Your task to perform on an android device: What is the recent news? Image 0: 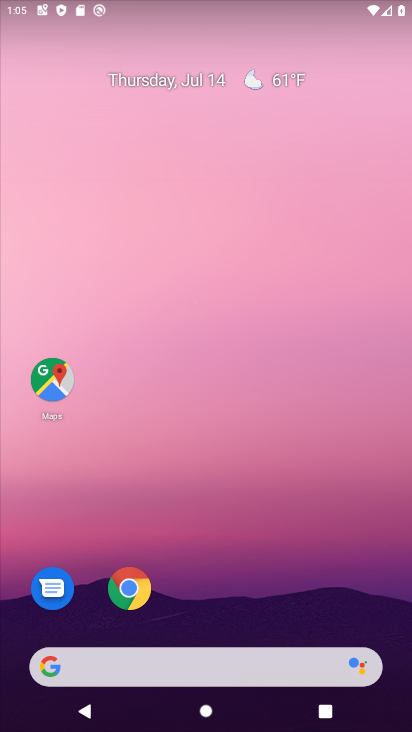
Step 0: click (140, 592)
Your task to perform on an android device: What is the recent news? Image 1: 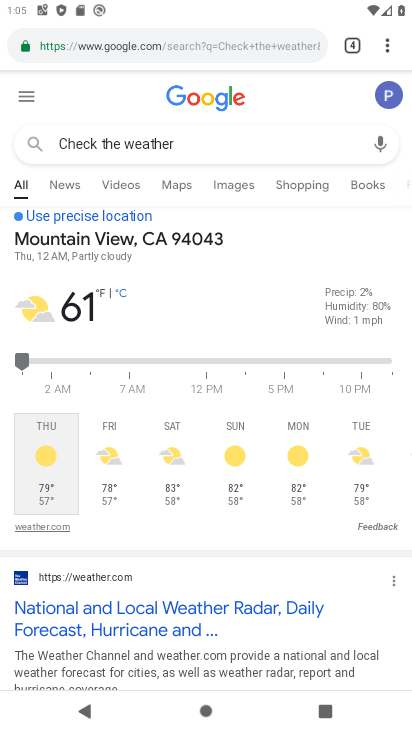
Step 1: click (382, 38)
Your task to perform on an android device: What is the recent news? Image 2: 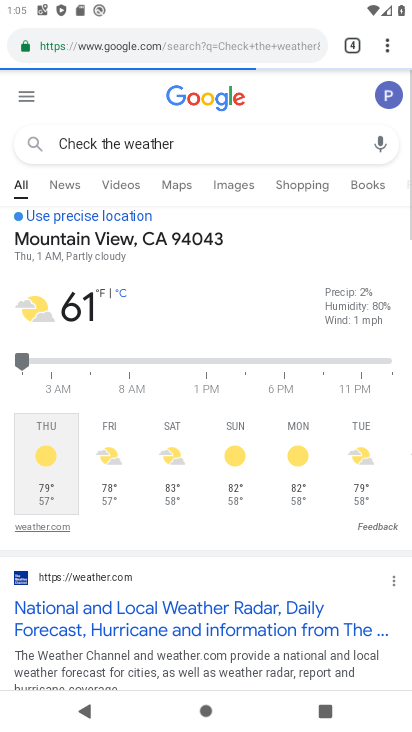
Step 2: click (381, 46)
Your task to perform on an android device: What is the recent news? Image 3: 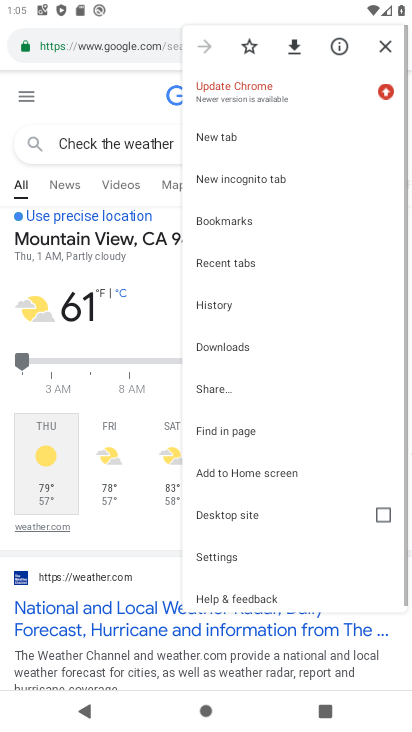
Step 3: drag from (234, 75) to (234, 148)
Your task to perform on an android device: What is the recent news? Image 4: 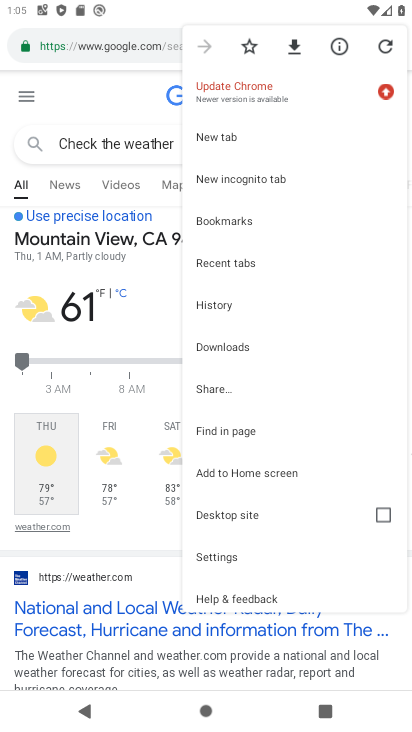
Step 4: click (222, 140)
Your task to perform on an android device: What is the recent news? Image 5: 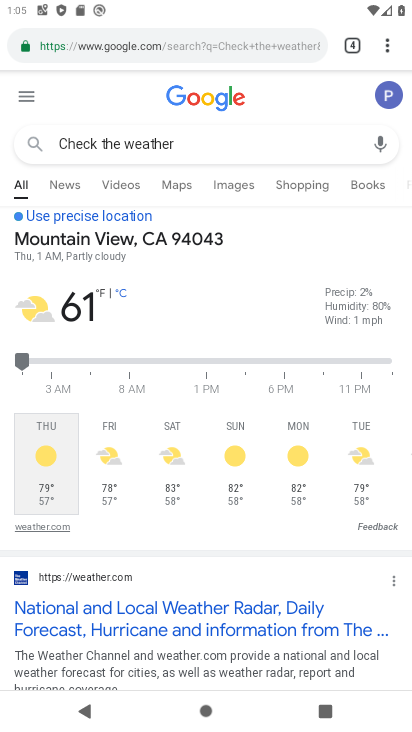
Step 5: click (218, 140)
Your task to perform on an android device: What is the recent news? Image 6: 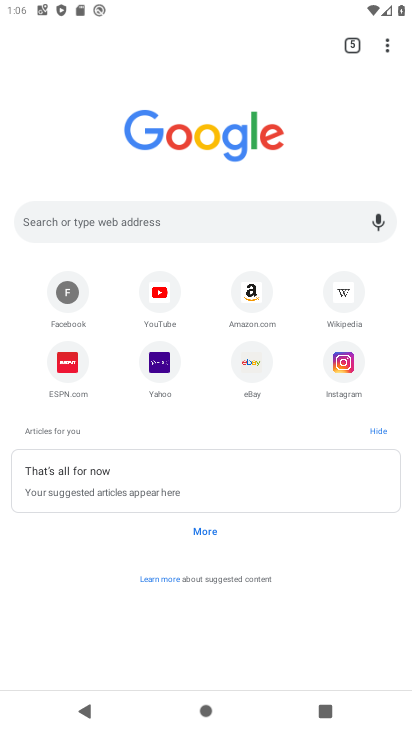
Step 6: click (150, 219)
Your task to perform on an android device: What is the recent news? Image 7: 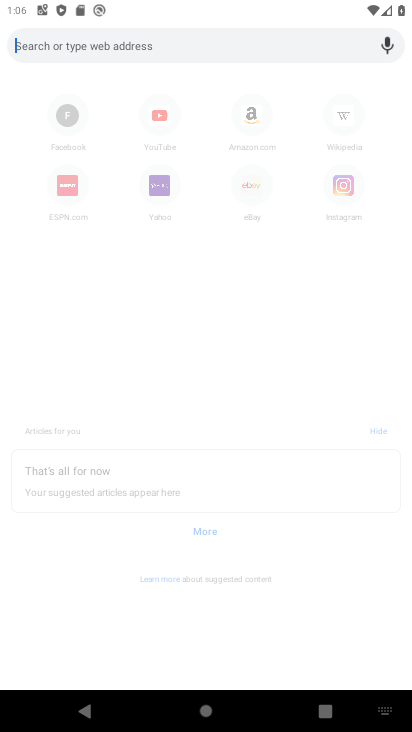
Step 7: type "What is the recent news "
Your task to perform on an android device: What is the recent news? Image 8: 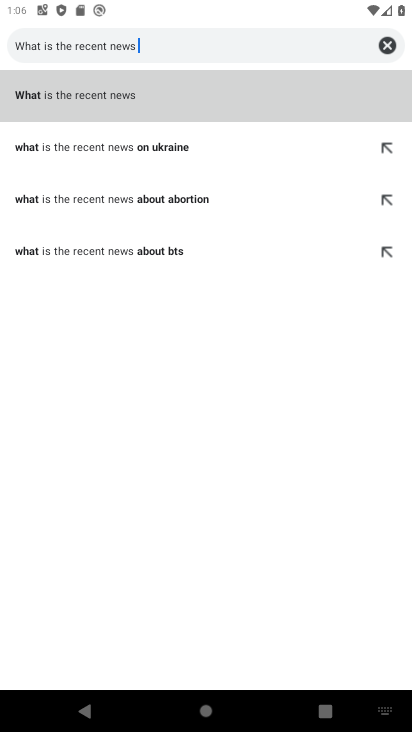
Step 8: click (190, 104)
Your task to perform on an android device: What is the recent news? Image 9: 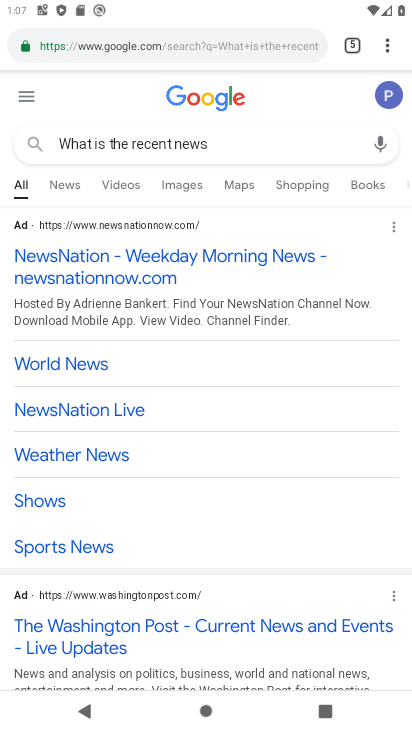
Step 9: task complete